Your task to perform on an android device: set default search engine in the chrome app Image 0: 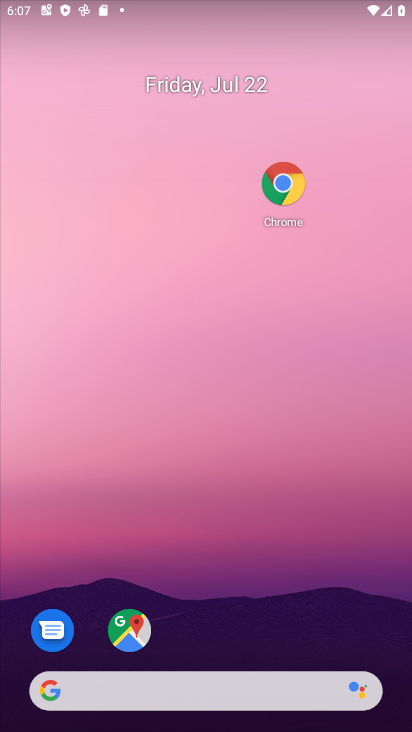
Step 0: click (283, 182)
Your task to perform on an android device: set default search engine in the chrome app Image 1: 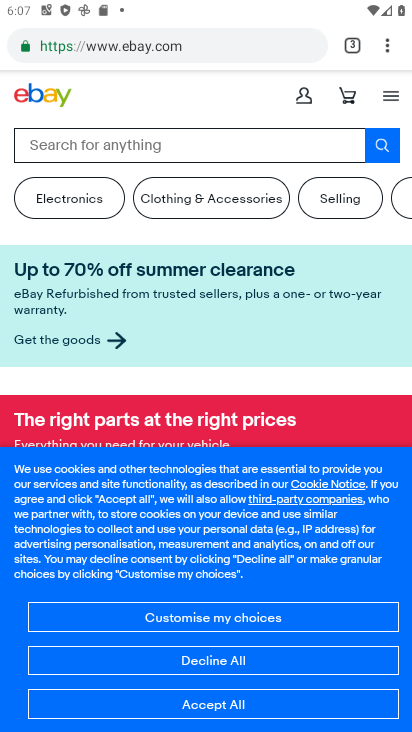
Step 1: click (388, 44)
Your task to perform on an android device: set default search engine in the chrome app Image 2: 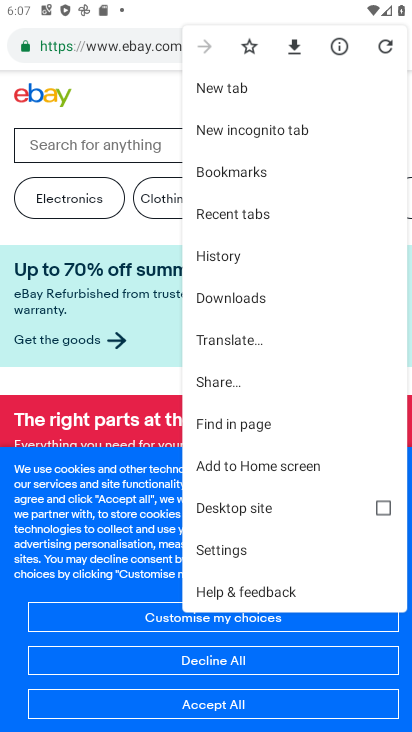
Step 2: click (239, 552)
Your task to perform on an android device: set default search engine in the chrome app Image 3: 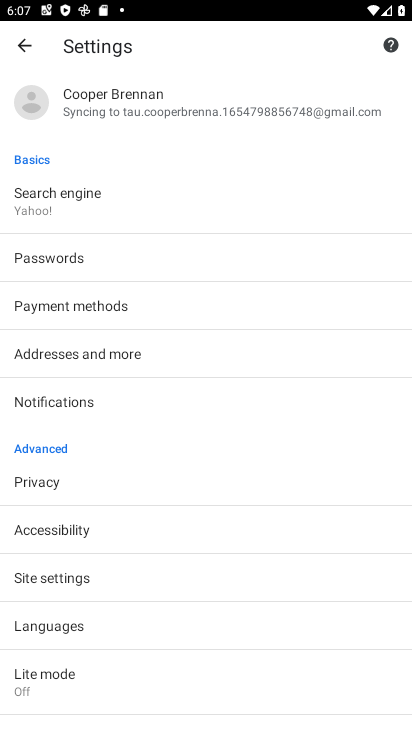
Step 3: click (58, 203)
Your task to perform on an android device: set default search engine in the chrome app Image 4: 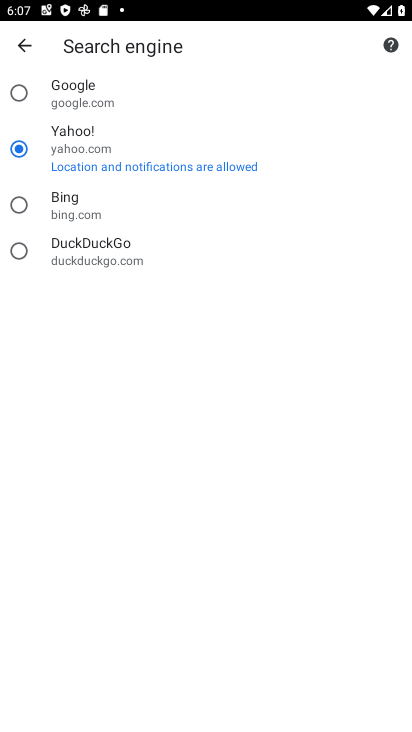
Step 4: click (18, 87)
Your task to perform on an android device: set default search engine in the chrome app Image 5: 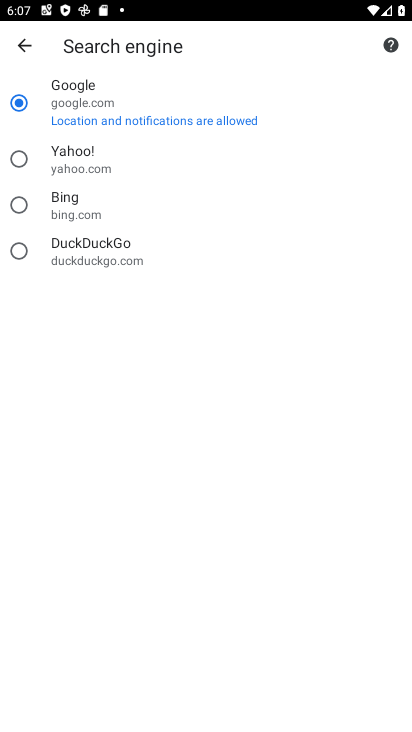
Step 5: task complete